Your task to perform on an android device: turn off smart reply in the gmail app Image 0: 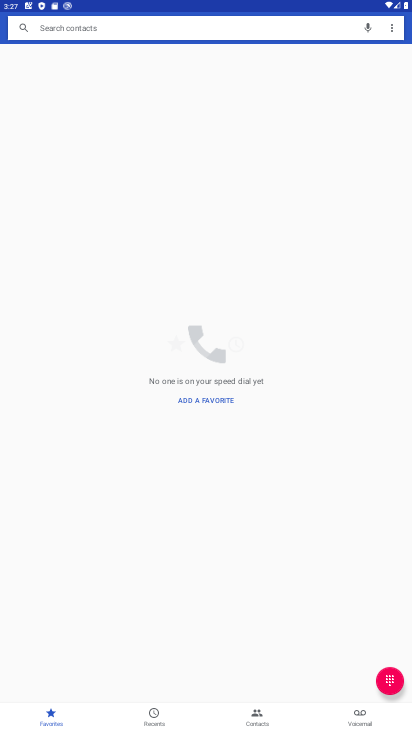
Step 0: press home button
Your task to perform on an android device: turn off smart reply in the gmail app Image 1: 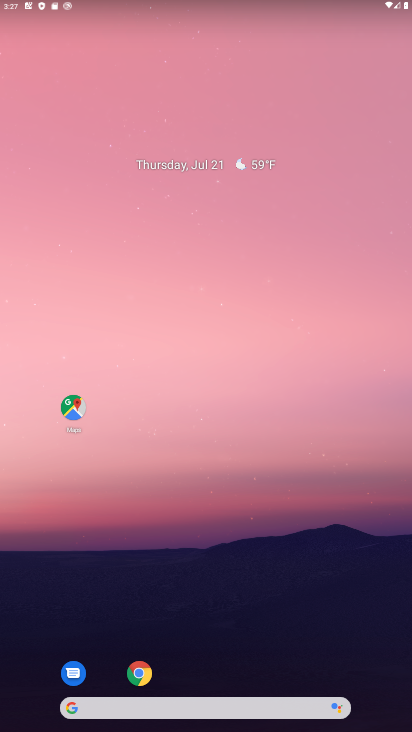
Step 1: drag from (253, 632) to (180, 51)
Your task to perform on an android device: turn off smart reply in the gmail app Image 2: 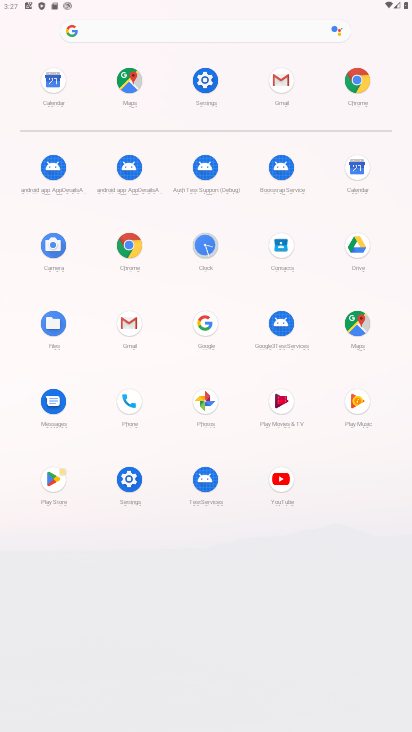
Step 2: click (279, 83)
Your task to perform on an android device: turn off smart reply in the gmail app Image 3: 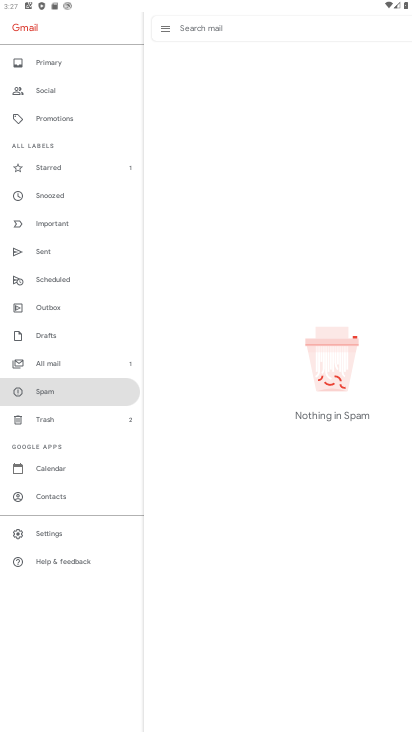
Step 3: click (46, 535)
Your task to perform on an android device: turn off smart reply in the gmail app Image 4: 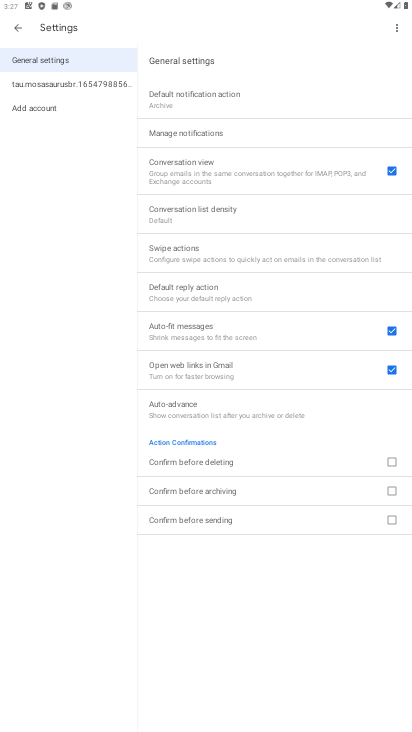
Step 4: click (119, 81)
Your task to perform on an android device: turn off smart reply in the gmail app Image 5: 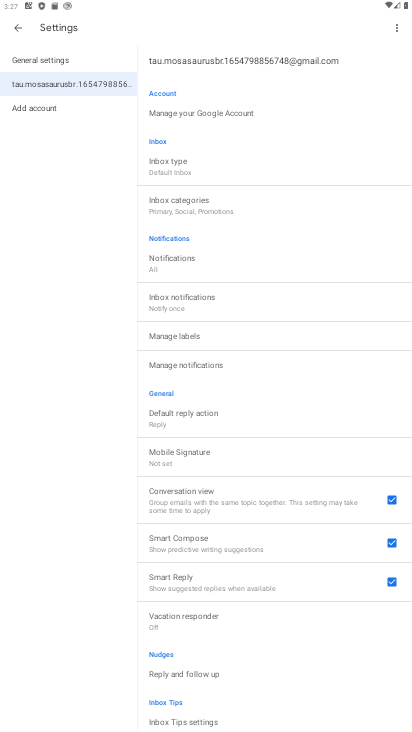
Step 5: click (388, 578)
Your task to perform on an android device: turn off smart reply in the gmail app Image 6: 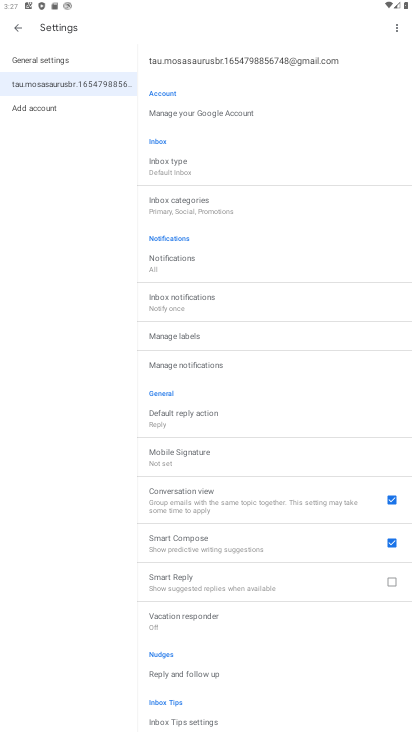
Step 6: task complete